Your task to perform on an android device: turn on notifications settings in the gmail app Image 0: 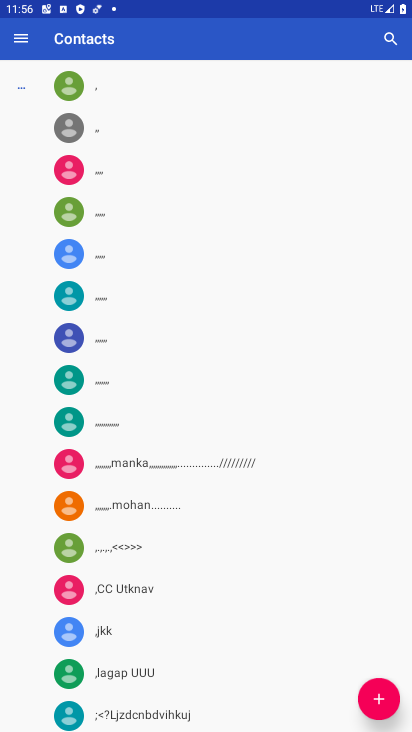
Step 0: press home button
Your task to perform on an android device: turn on notifications settings in the gmail app Image 1: 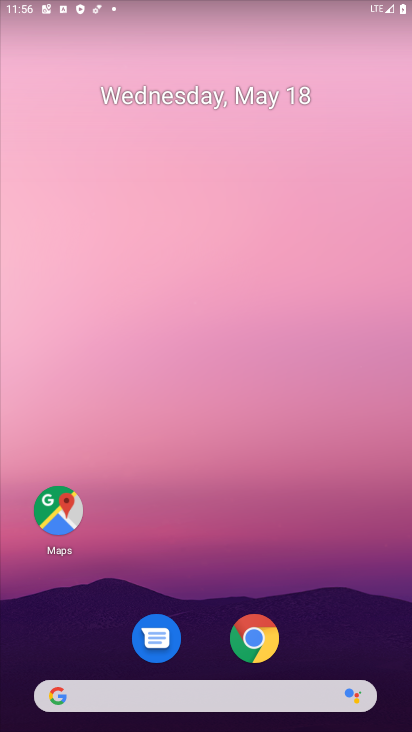
Step 1: drag from (366, 606) to (317, 124)
Your task to perform on an android device: turn on notifications settings in the gmail app Image 2: 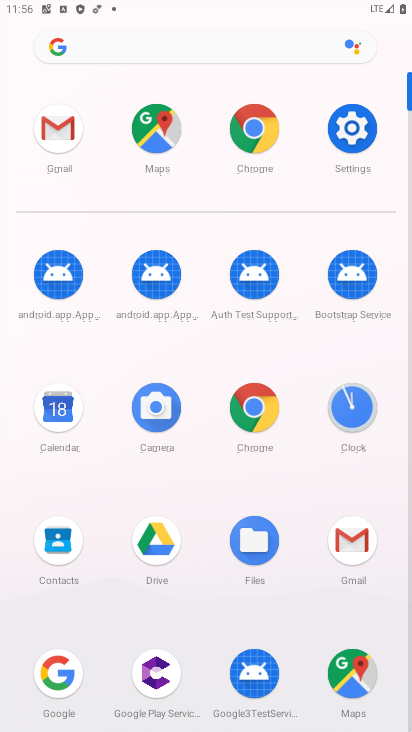
Step 2: click (351, 544)
Your task to perform on an android device: turn on notifications settings in the gmail app Image 3: 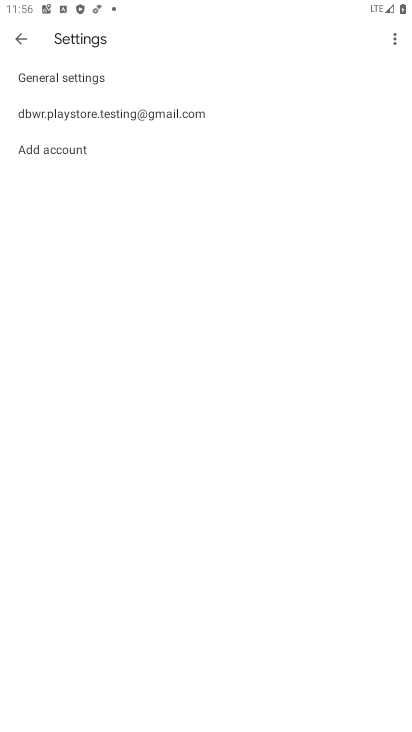
Step 3: click (145, 119)
Your task to perform on an android device: turn on notifications settings in the gmail app Image 4: 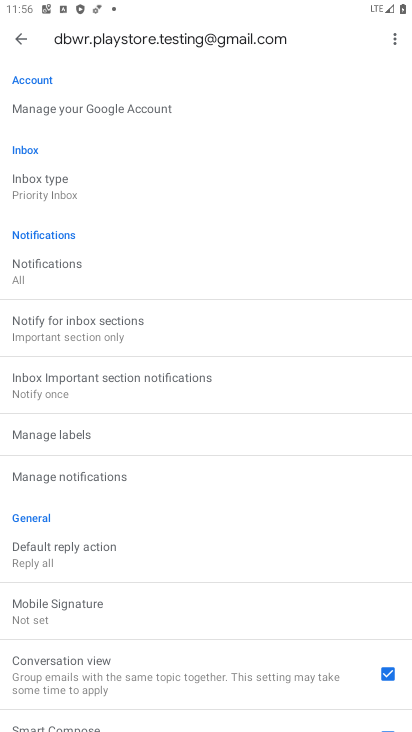
Step 4: click (149, 272)
Your task to perform on an android device: turn on notifications settings in the gmail app Image 5: 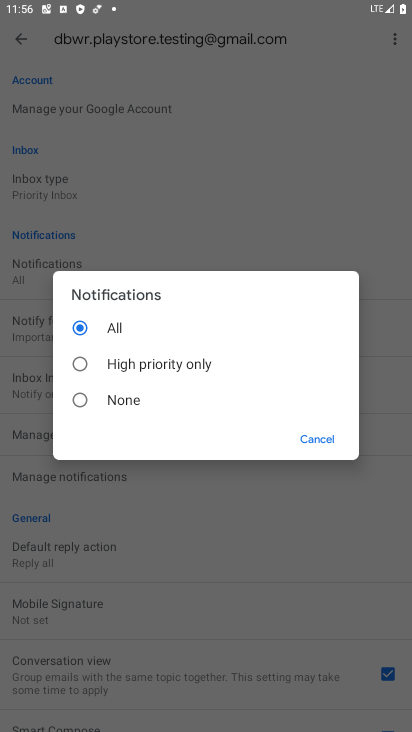
Step 5: task complete